Your task to perform on an android device: all mails in gmail Image 0: 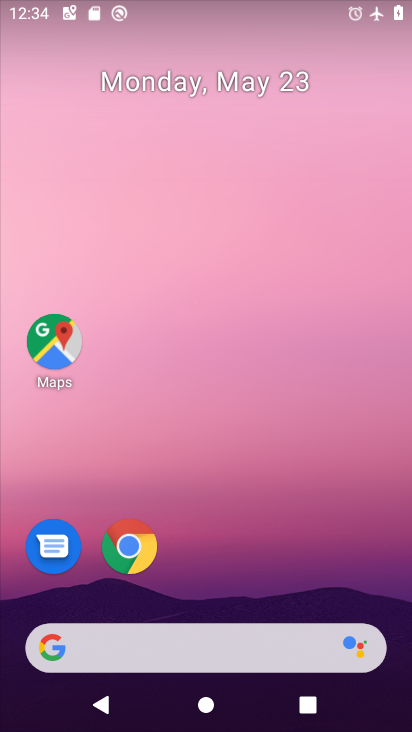
Step 0: drag from (185, 601) to (256, 0)
Your task to perform on an android device: all mails in gmail Image 1: 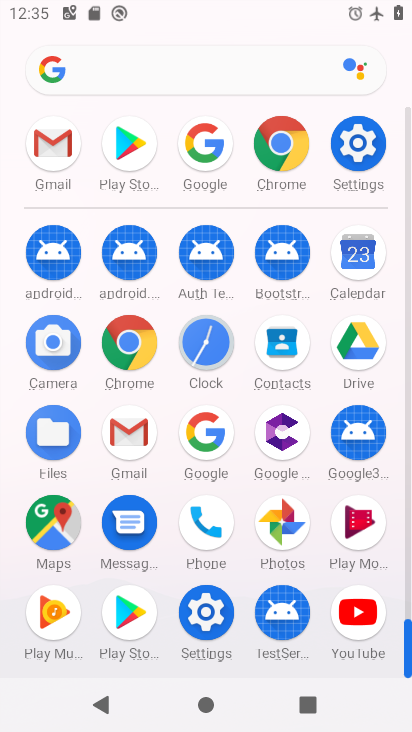
Step 1: drag from (254, 602) to (410, 640)
Your task to perform on an android device: all mails in gmail Image 2: 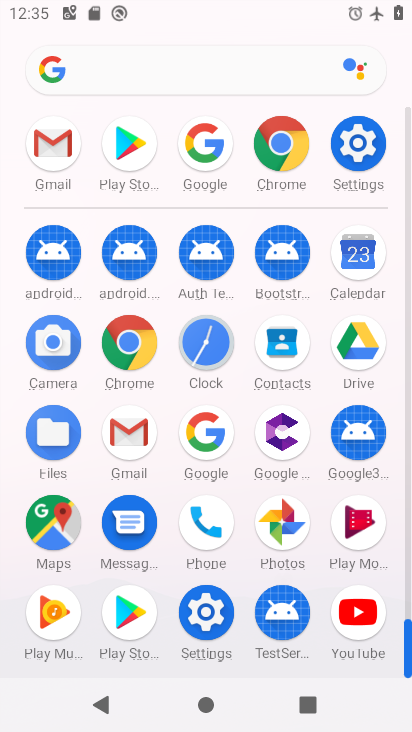
Step 2: click (141, 443)
Your task to perform on an android device: all mails in gmail Image 3: 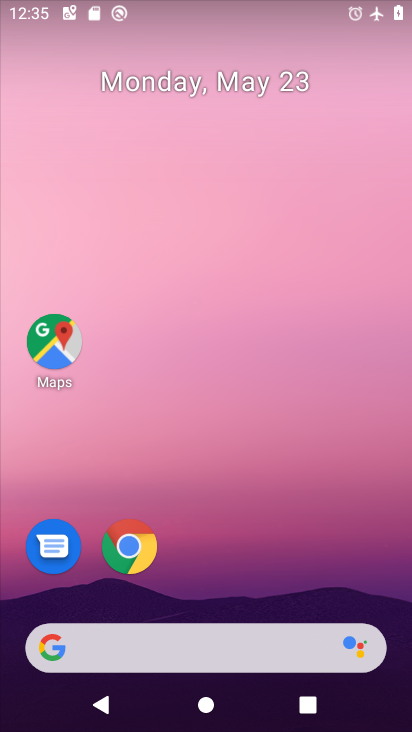
Step 3: drag from (272, 586) to (320, 119)
Your task to perform on an android device: all mails in gmail Image 4: 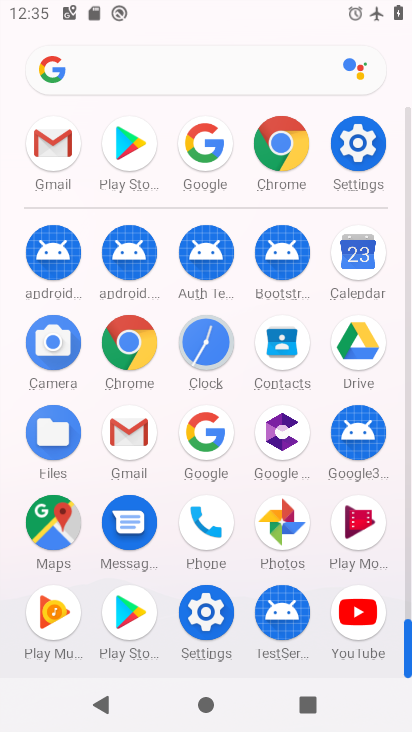
Step 4: click (141, 423)
Your task to perform on an android device: all mails in gmail Image 5: 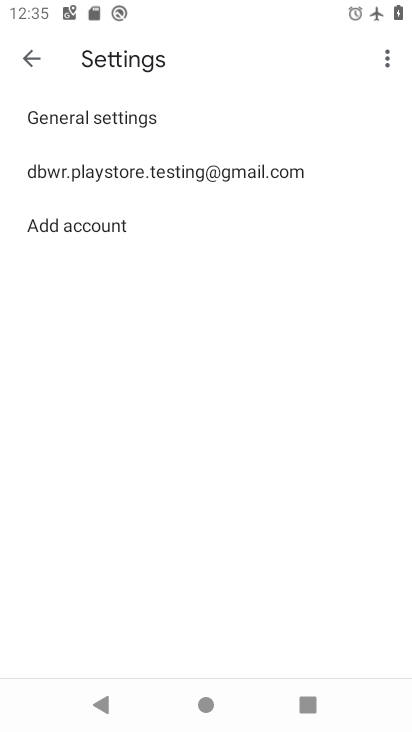
Step 5: click (28, 55)
Your task to perform on an android device: all mails in gmail Image 6: 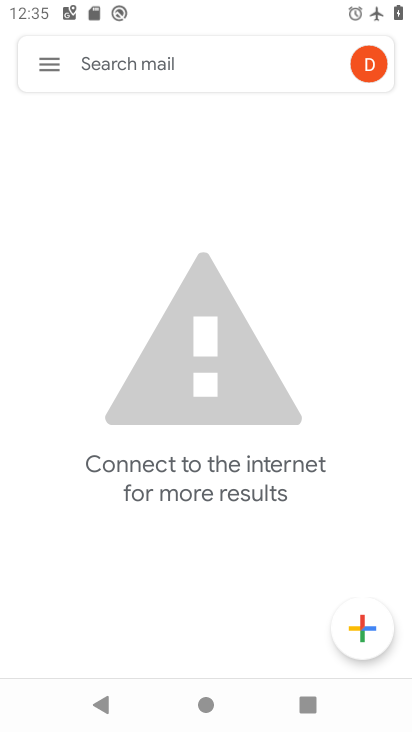
Step 6: click (54, 73)
Your task to perform on an android device: all mails in gmail Image 7: 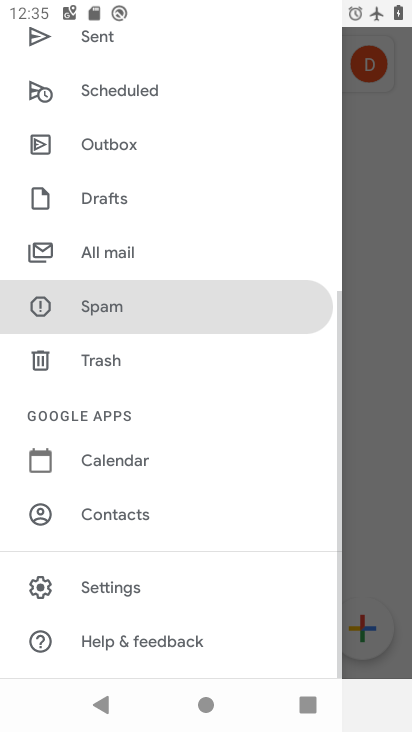
Step 7: click (125, 249)
Your task to perform on an android device: all mails in gmail Image 8: 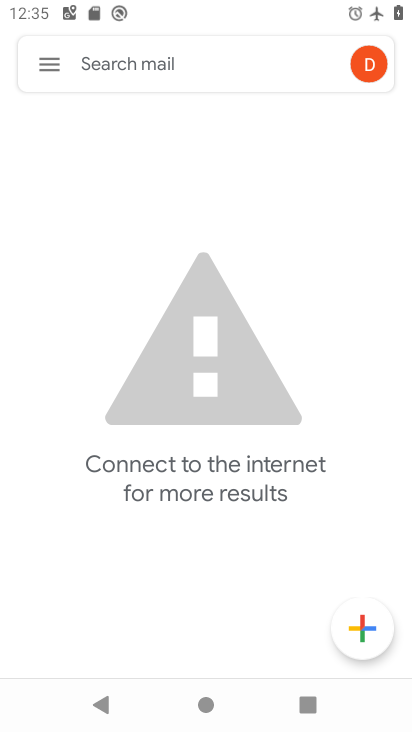
Step 8: click (39, 60)
Your task to perform on an android device: all mails in gmail Image 9: 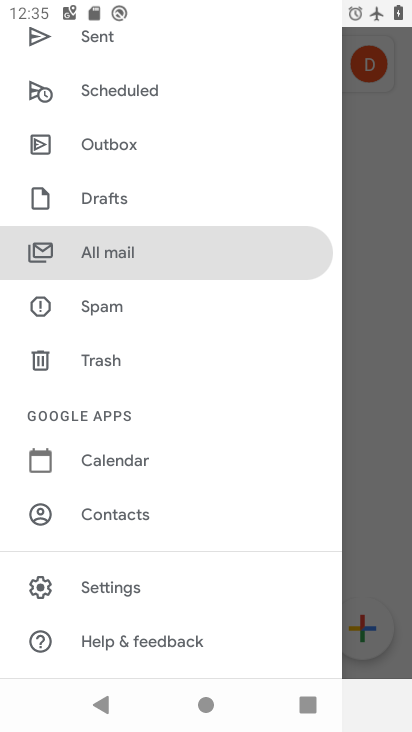
Step 9: task complete